Your task to perform on an android device: Turn off the flashlight Image 0: 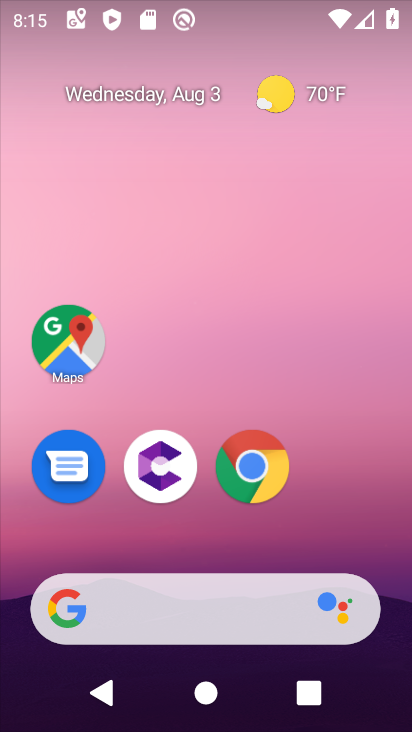
Step 0: drag from (357, 508) to (357, 85)
Your task to perform on an android device: Turn off the flashlight Image 1: 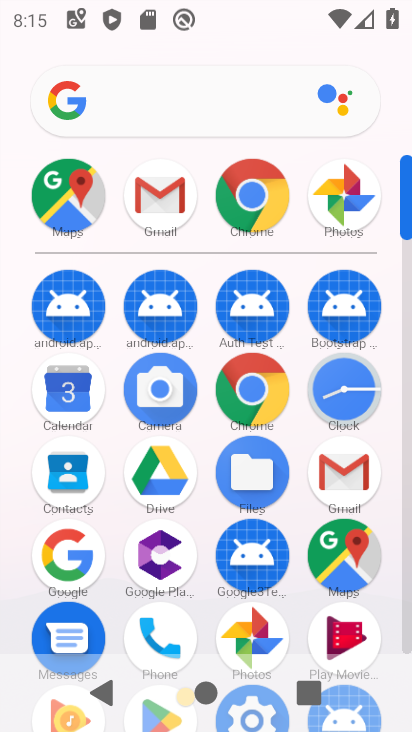
Step 1: drag from (291, 516) to (301, 337)
Your task to perform on an android device: Turn off the flashlight Image 2: 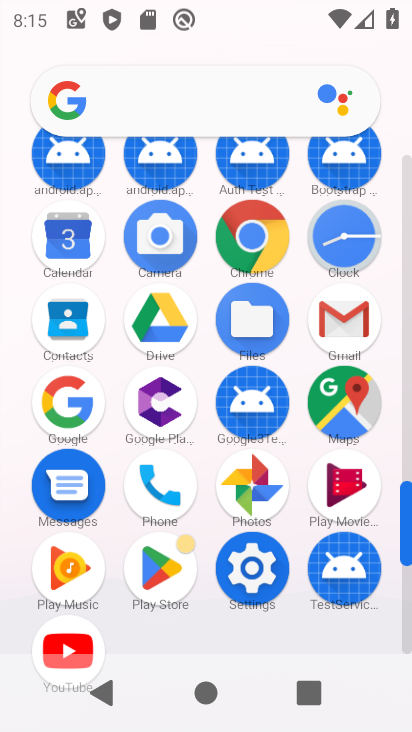
Step 2: click (257, 590)
Your task to perform on an android device: Turn off the flashlight Image 3: 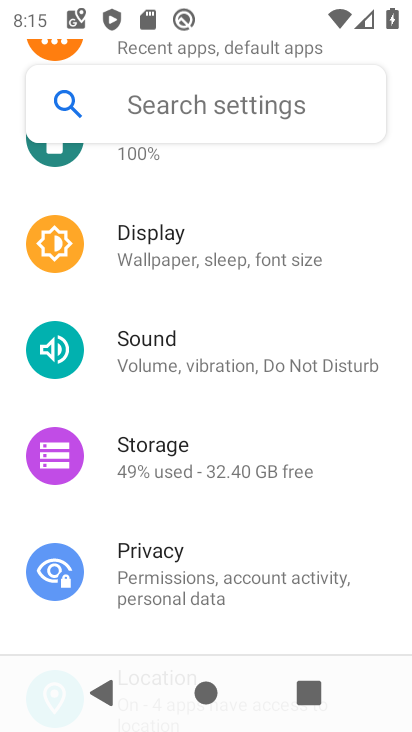
Step 3: click (223, 258)
Your task to perform on an android device: Turn off the flashlight Image 4: 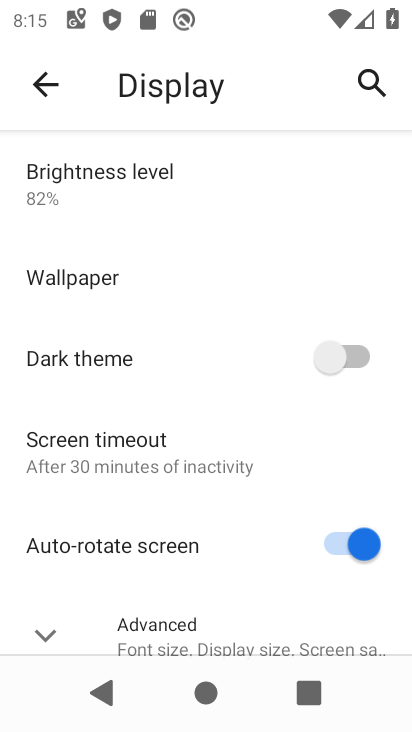
Step 4: click (101, 430)
Your task to perform on an android device: Turn off the flashlight Image 5: 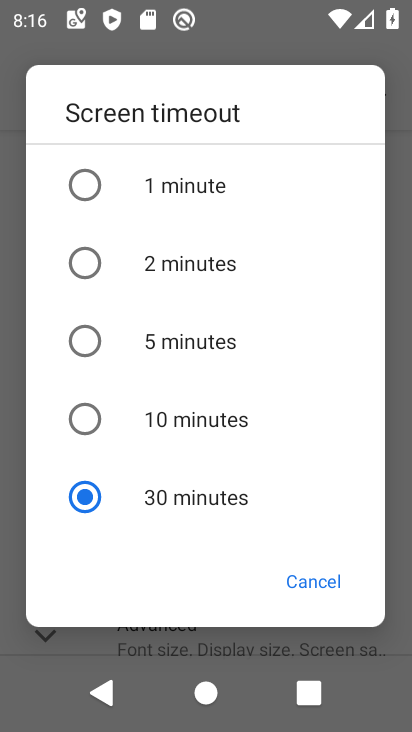
Step 5: task complete